Your task to perform on an android device: change alarm snooze length Image 0: 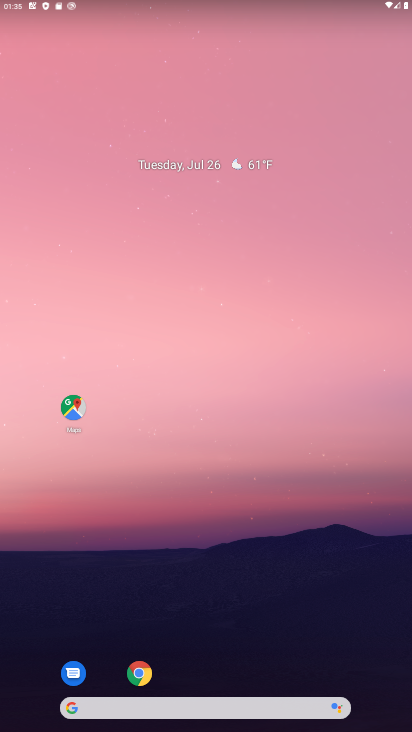
Step 0: drag from (201, 649) to (201, 172)
Your task to perform on an android device: change alarm snooze length Image 1: 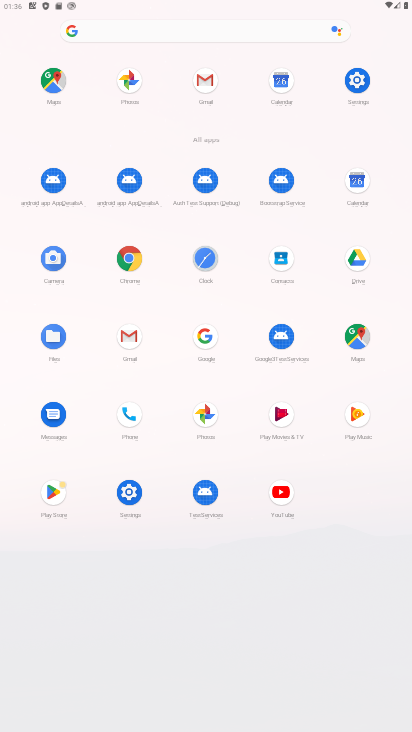
Step 1: click (205, 260)
Your task to perform on an android device: change alarm snooze length Image 2: 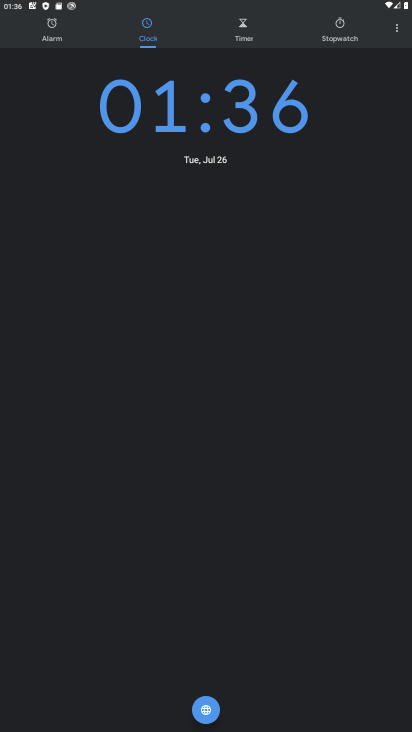
Step 2: click (398, 33)
Your task to perform on an android device: change alarm snooze length Image 3: 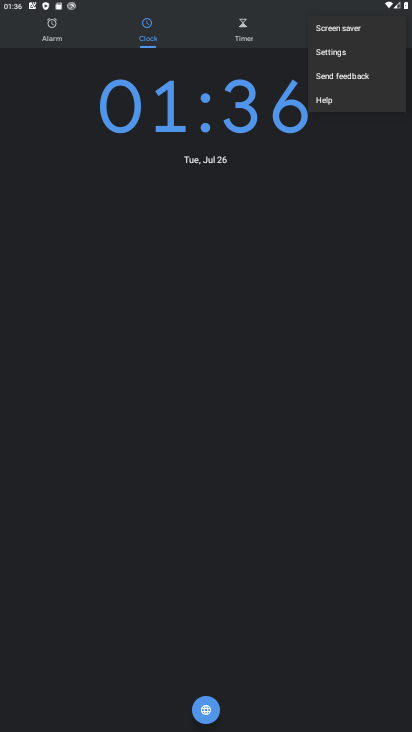
Step 3: click (337, 53)
Your task to perform on an android device: change alarm snooze length Image 4: 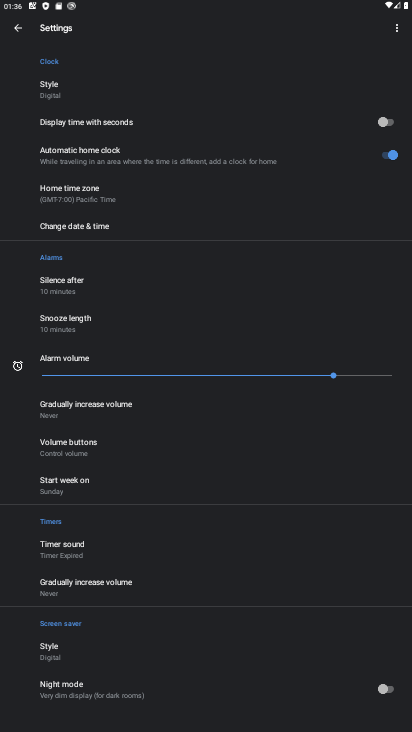
Step 4: click (74, 316)
Your task to perform on an android device: change alarm snooze length Image 5: 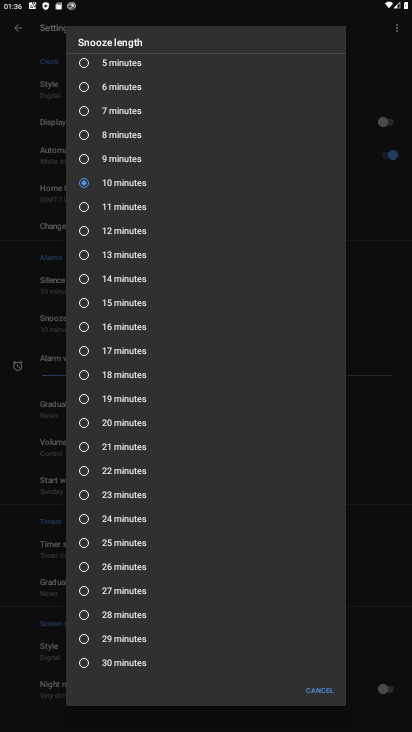
Step 5: click (82, 451)
Your task to perform on an android device: change alarm snooze length Image 6: 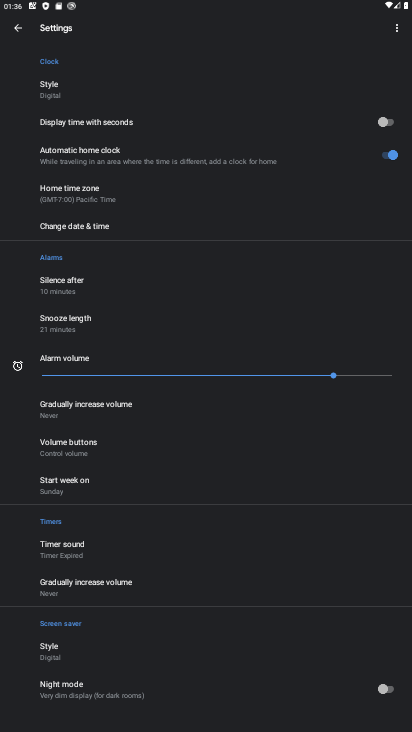
Step 6: task complete